Your task to perform on an android device: change text size in settings app Image 0: 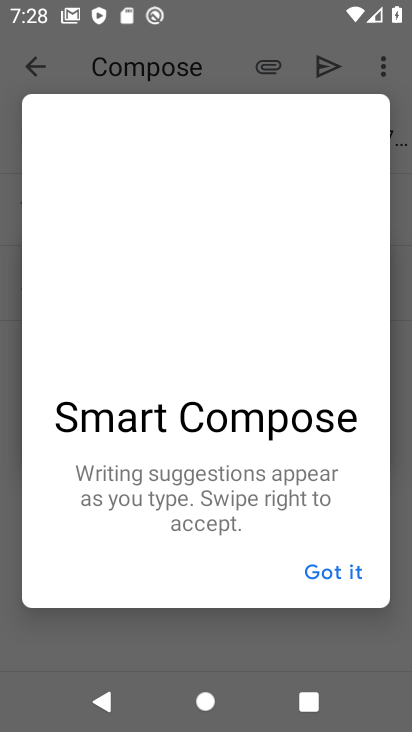
Step 0: press home button
Your task to perform on an android device: change text size in settings app Image 1: 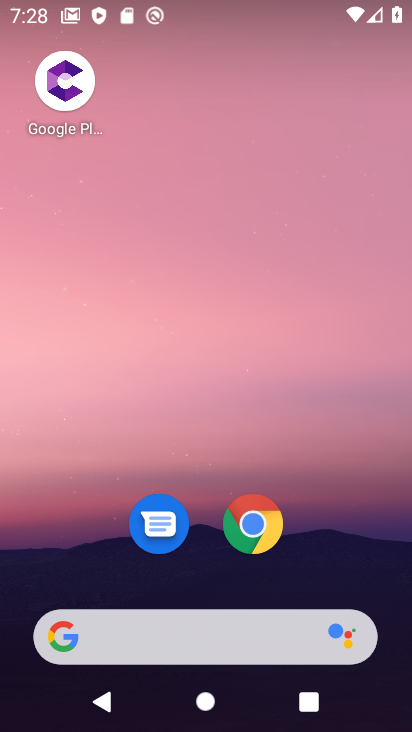
Step 1: drag from (146, 633) to (366, 31)
Your task to perform on an android device: change text size in settings app Image 2: 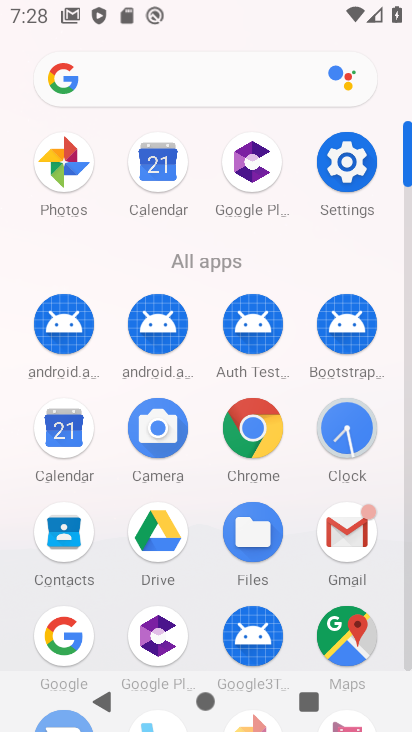
Step 2: click (349, 152)
Your task to perform on an android device: change text size in settings app Image 3: 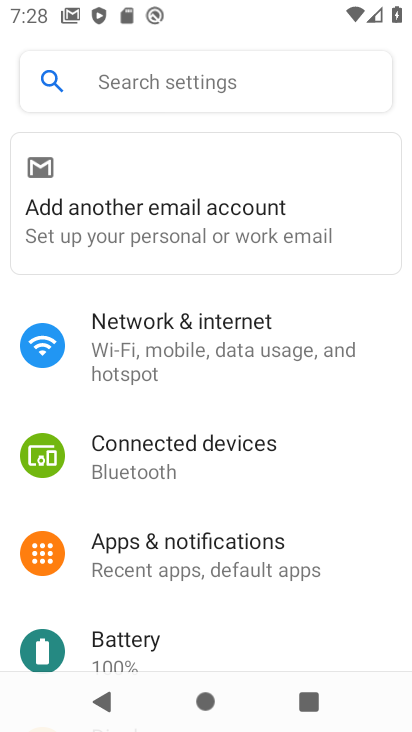
Step 3: drag from (276, 616) to (410, 200)
Your task to perform on an android device: change text size in settings app Image 4: 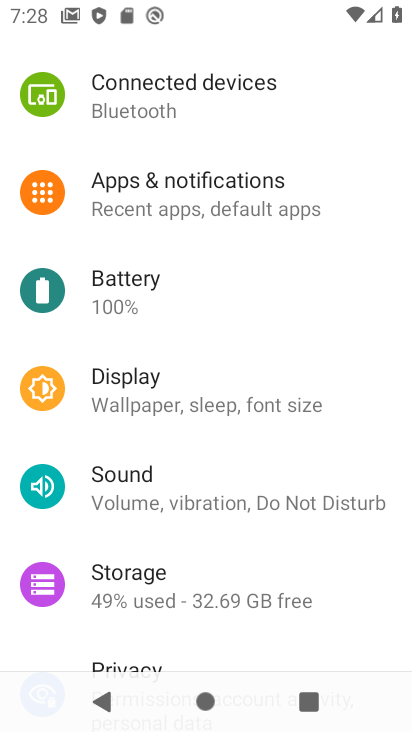
Step 4: click (165, 400)
Your task to perform on an android device: change text size in settings app Image 5: 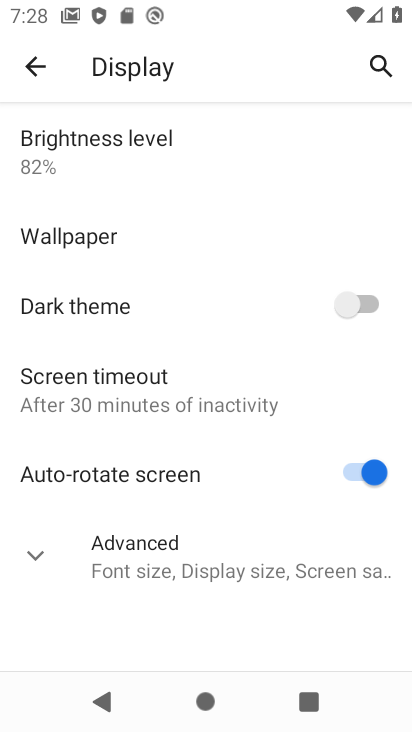
Step 5: click (133, 553)
Your task to perform on an android device: change text size in settings app Image 6: 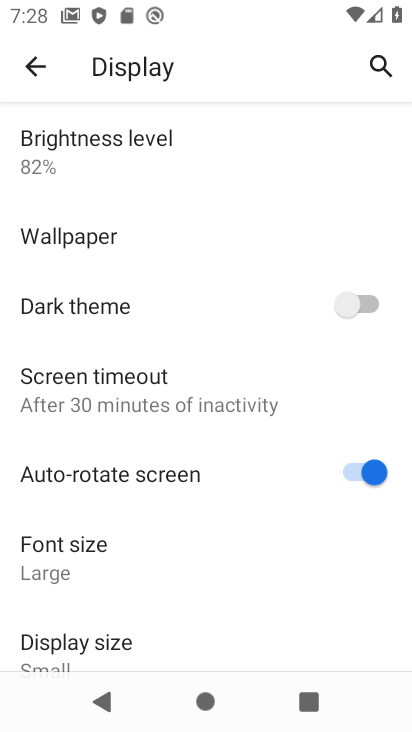
Step 6: drag from (162, 507) to (339, 191)
Your task to perform on an android device: change text size in settings app Image 7: 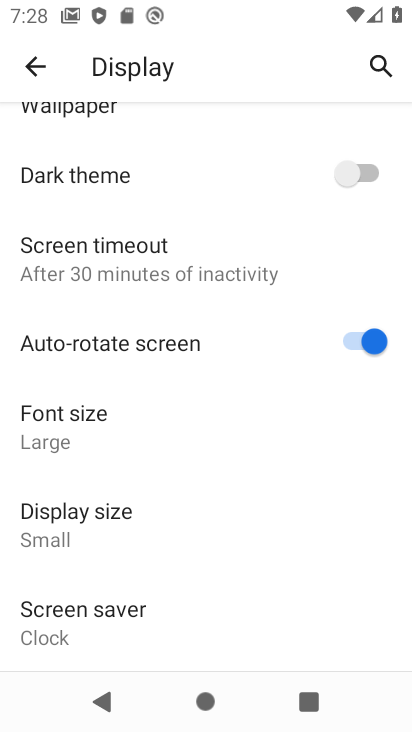
Step 7: click (93, 425)
Your task to perform on an android device: change text size in settings app Image 8: 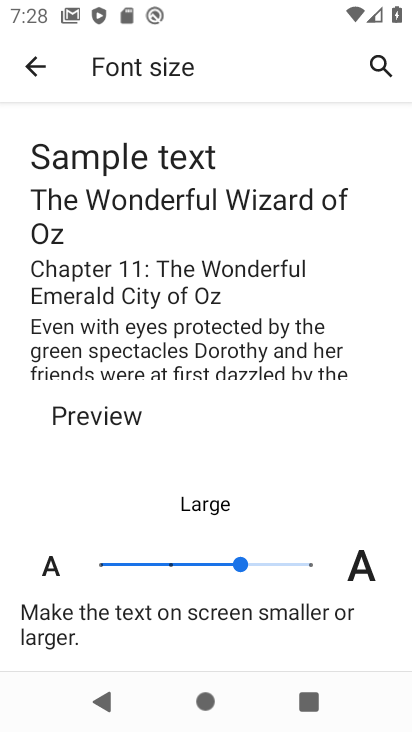
Step 8: click (175, 562)
Your task to perform on an android device: change text size in settings app Image 9: 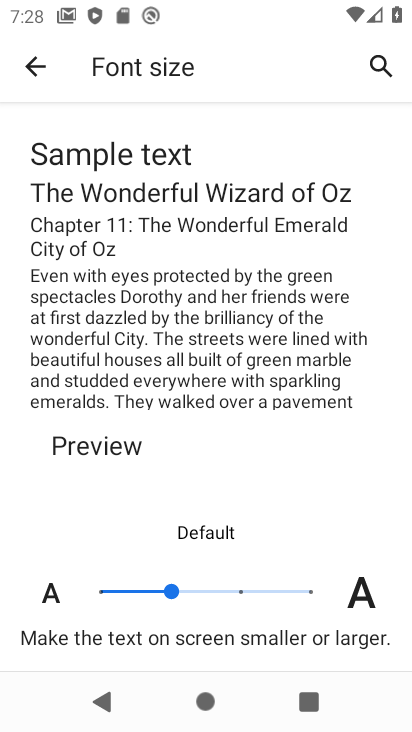
Step 9: task complete